Your task to perform on an android device: clear history in the chrome app Image 0: 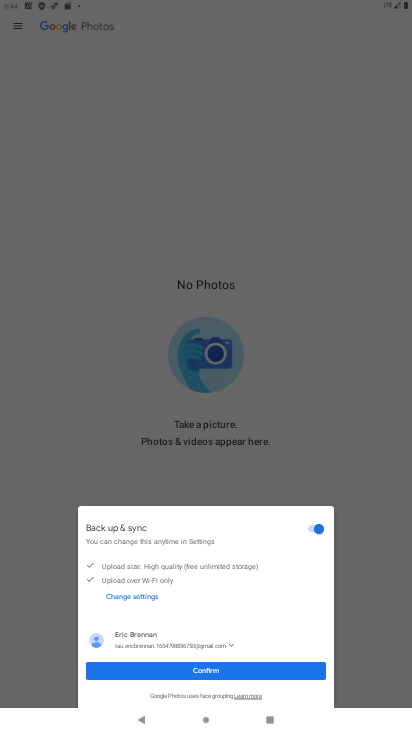
Step 0: press home button
Your task to perform on an android device: clear history in the chrome app Image 1: 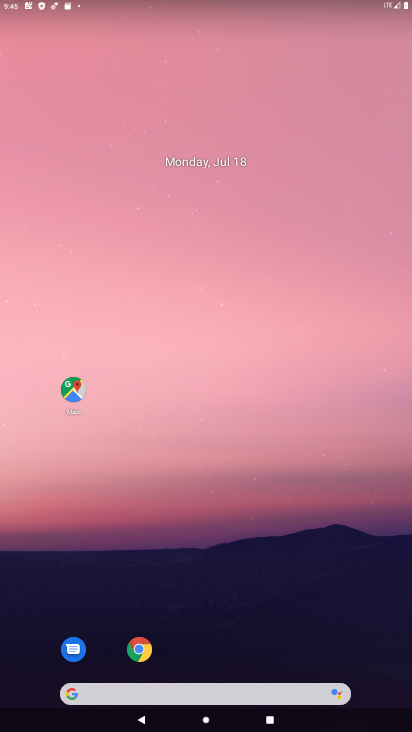
Step 1: click (137, 648)
Your task to perform on an android device: clear history in the chrome app Image 2: 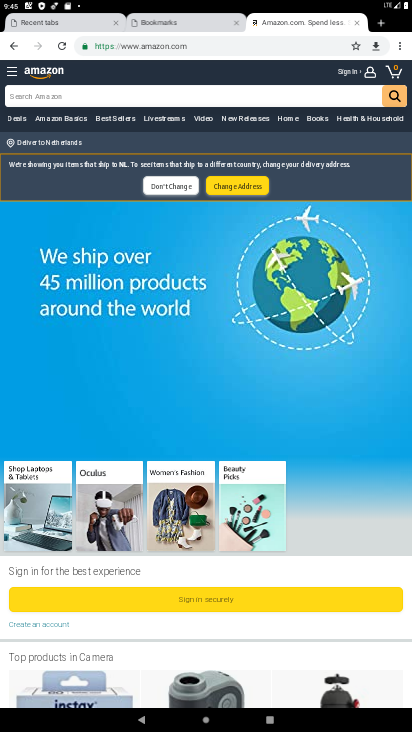
Step 2: click (404, 47)
Your task to perform on an android device: clear history in the chrome app Image 3: 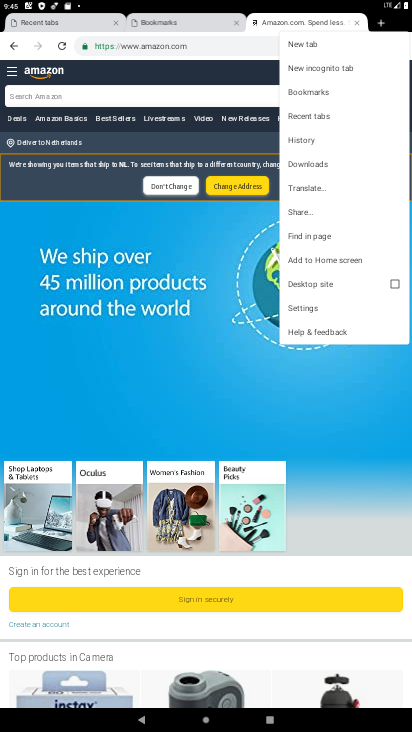
Step 3: click (335, 144)
Your task to perform on an android device: clear history in the chrome app Image 4: 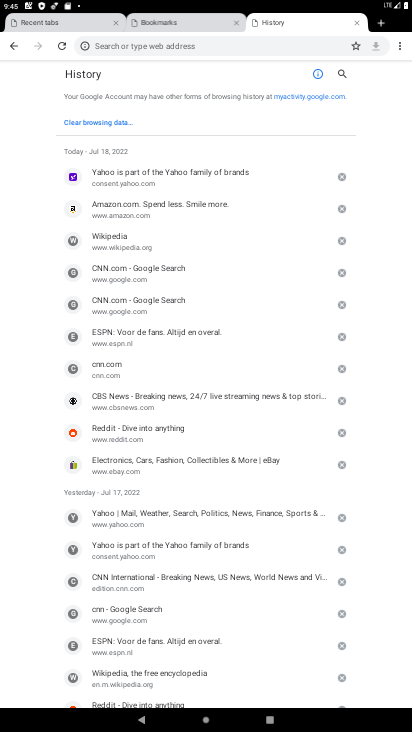
Step 4: click (103, 124)
Your task to perform on an android device: clear history in the chrome app Image 5: 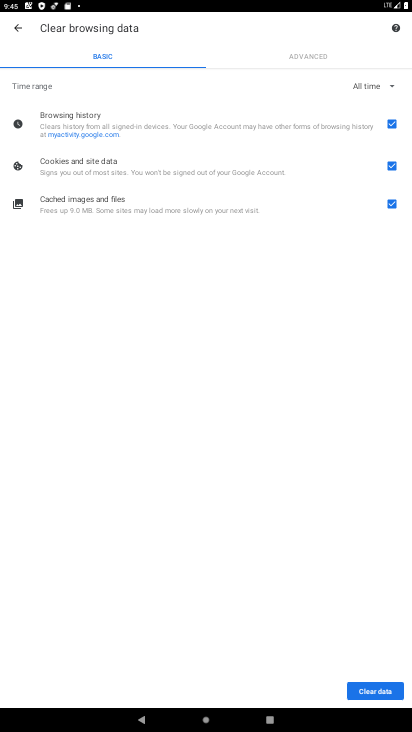
Step 5: click (367, 696)
Your task to perform on an android device: clear history in the chrome app Image 6: 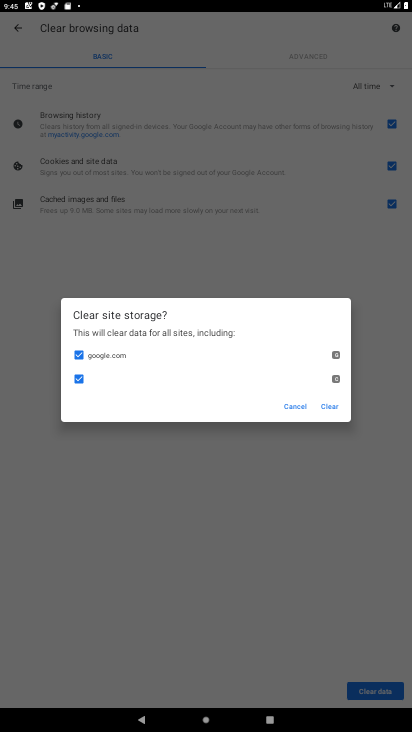
Step 6: click (328, 411)
Your task to perform on an android device: clear history in the chrome app Image 7: 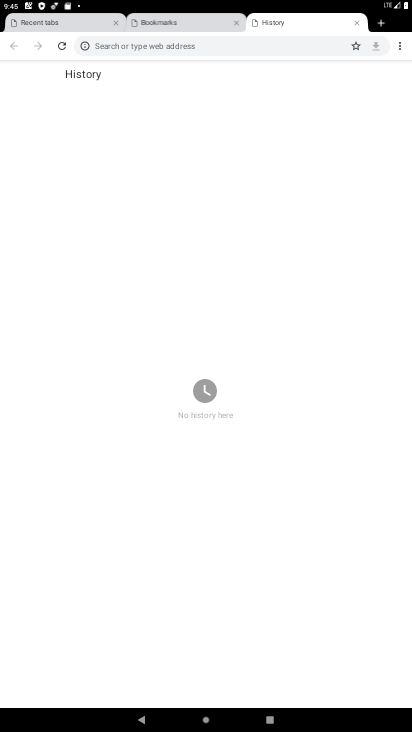
Step 7: task complete